Your task to perform on an android device: clear history in the chrome app Image 0: 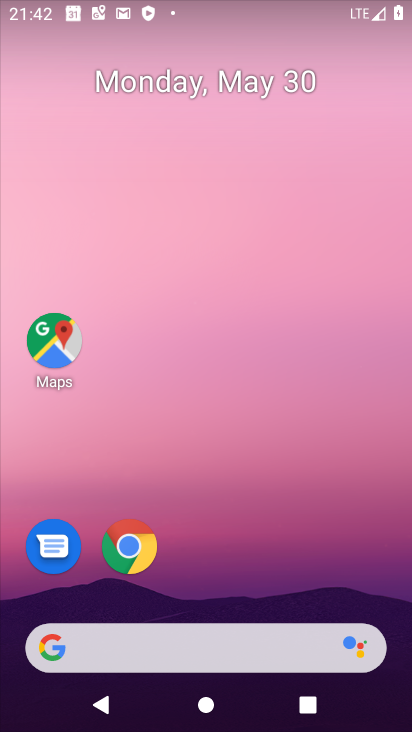
Step 0: drag from (299, 533) to (292, 220)
Your task to perform on an android device: clear history in the chrome app Image 1: 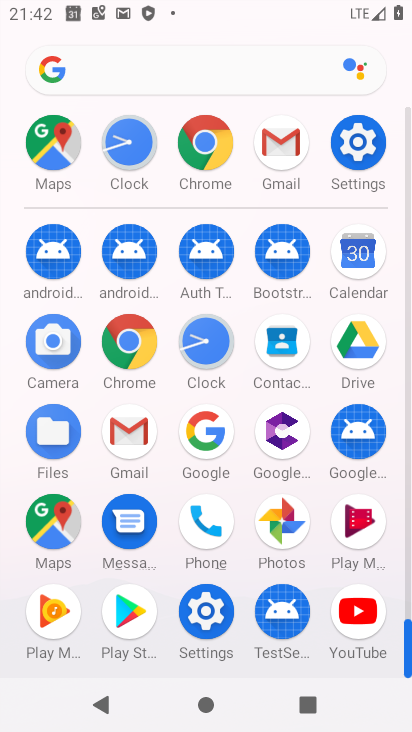
Step 1: click (135, 347)
Your task to perform on an android device: clear history in the chrome app Image 2: 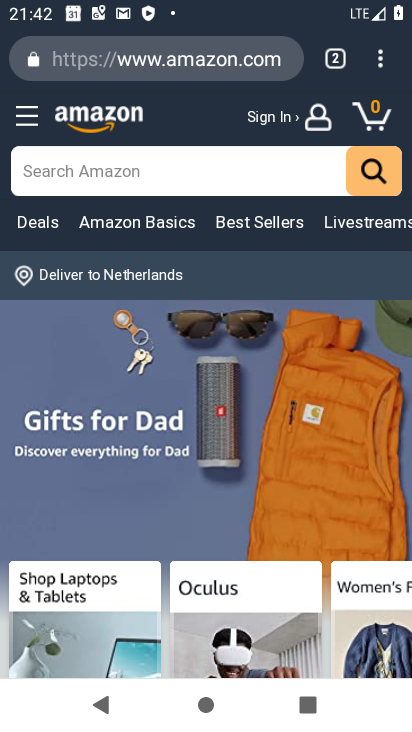
Step 2: drag from (377, 72) to (224, 326)
Your task to perform on an android device: clear history in the chrome app Image 3: 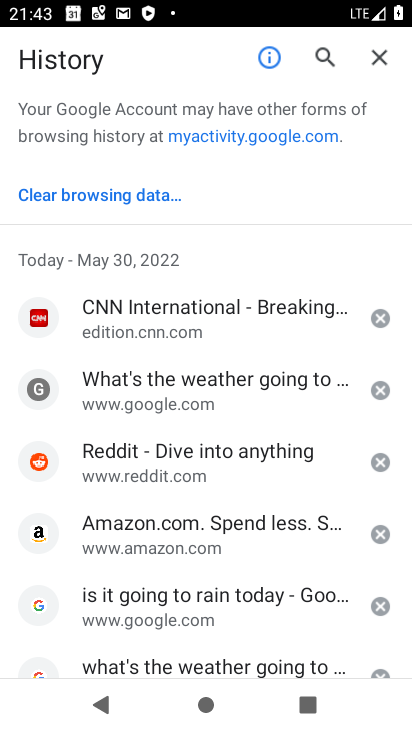
Step 3: click (117, 198)
Your task to perform on an android device: clear history in the chrome app Image 4: 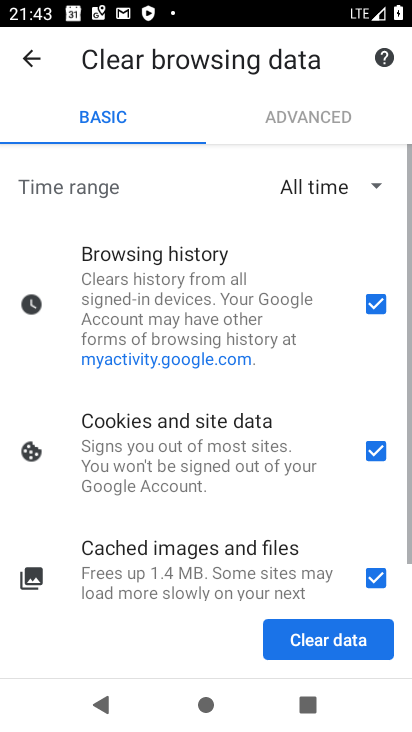
Step 4: click (346, 647)
Your task to perform on an android device: clear history in the chrome app Image 5: 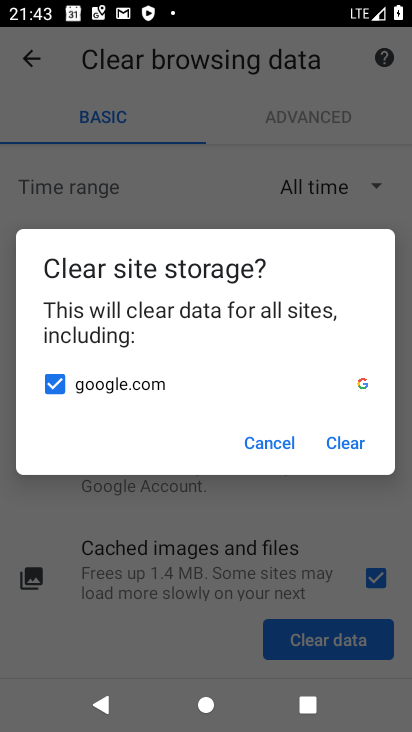
Step 5: click (365, 449)
Your task to perform on an android device: clear history in the chrome app Image 6: 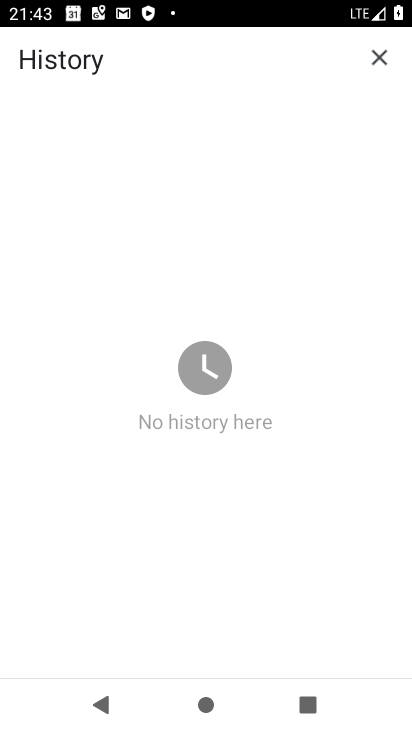
Step 6: task complete